Your task to perform on an android device: Open internet settings Image 0: 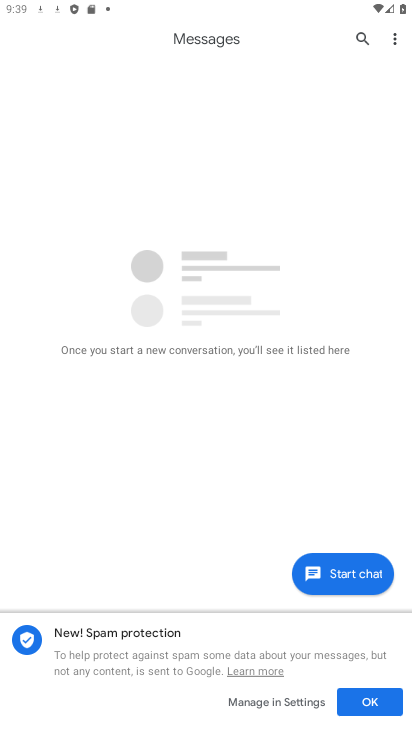
Step 0: press home button
Your task to perform on an android device: Open internet settings Image 1: 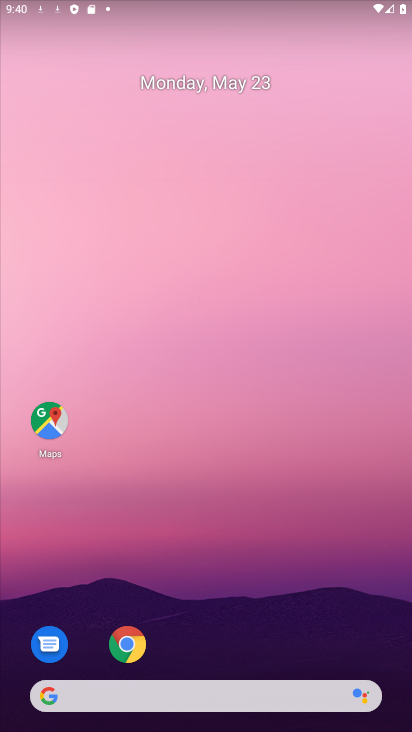
Step 1: drag from (270, 712) to (285, 133)
Your task to perform on an android device: Open internet settings Image 2: 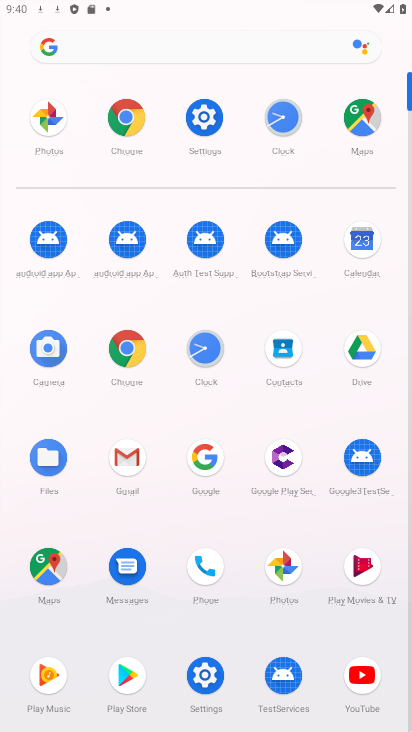
Step 2: click (211, 131)
Your task to perform on an android device: Open internet settings Image 3: 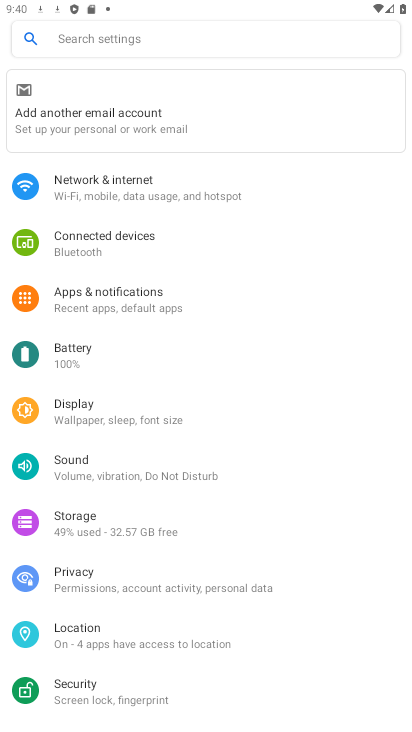
Step 3: click (153, 194)
Your task to perform on an android device: Open internet settings Image 4: 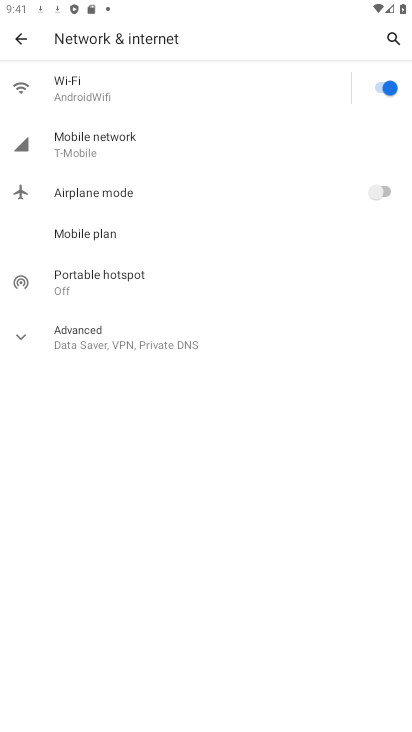
Step 4: task complete